Your task to perform on an android device: turn vacation reply on in the gmail app Image 0: 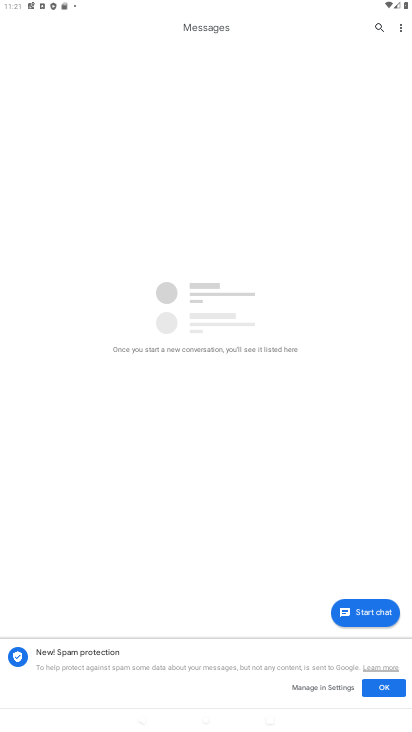
Step 0: press home button
Your task to perform on an android device: turn vacation reply on in the gmail app Image 1: 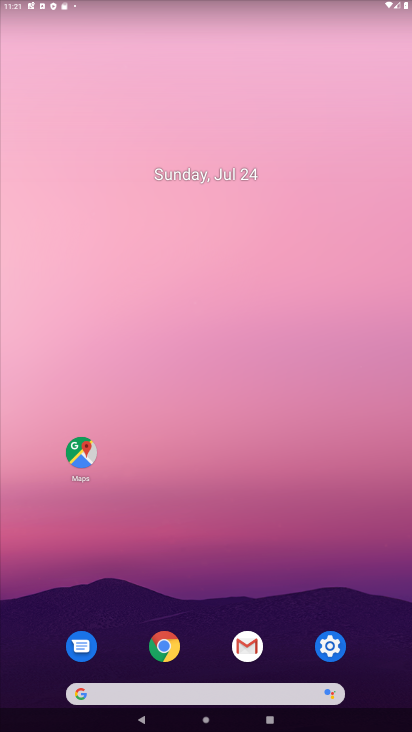
Step 1: click (257, 634)
Your task to perform on an android device: turn vacation reply on in the gmail app Image 2: 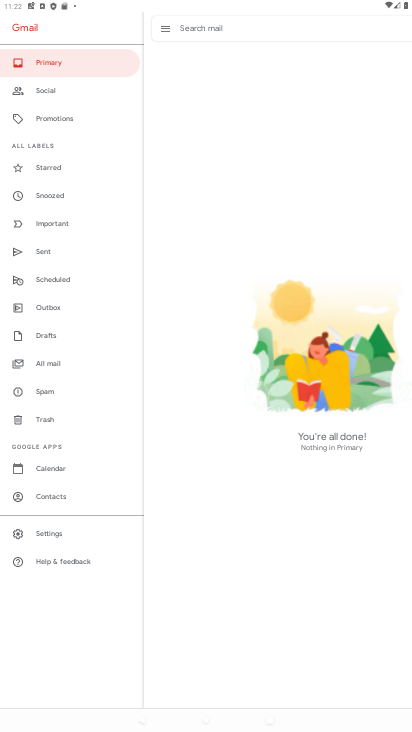
Step 2: click (53, 530)
Your task to perform on an android device: turn vacation reply on in the gmail app Image 3: 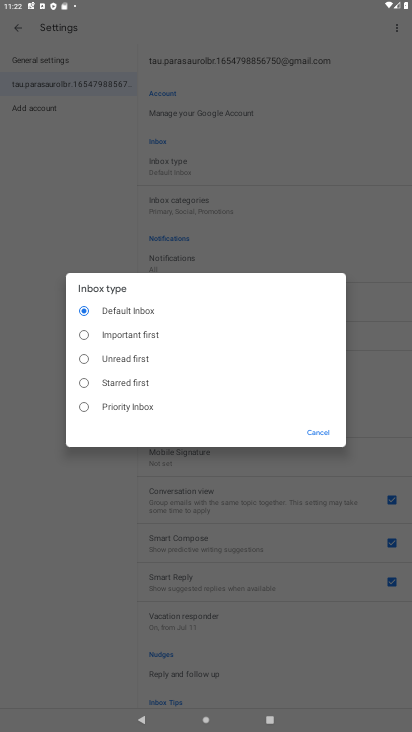
Step 3: click (313, 431)
Your task to perform on an android device: turn vacation reply on in the gmail app Image 4: 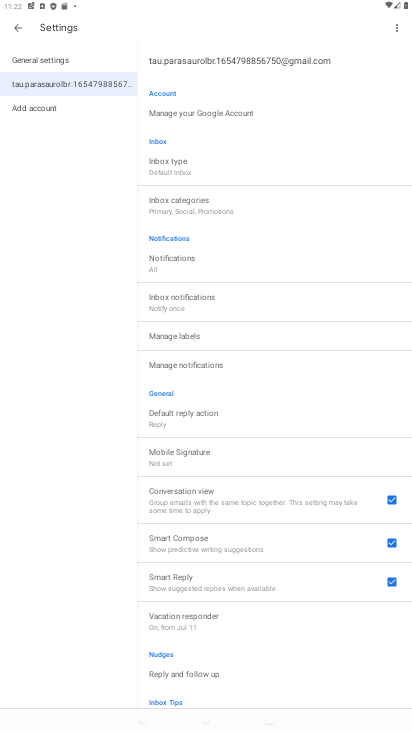
Step 4: click (210, 620)
Your task to perform on an android device: turn vacation reply on in the gmail app Image 5: 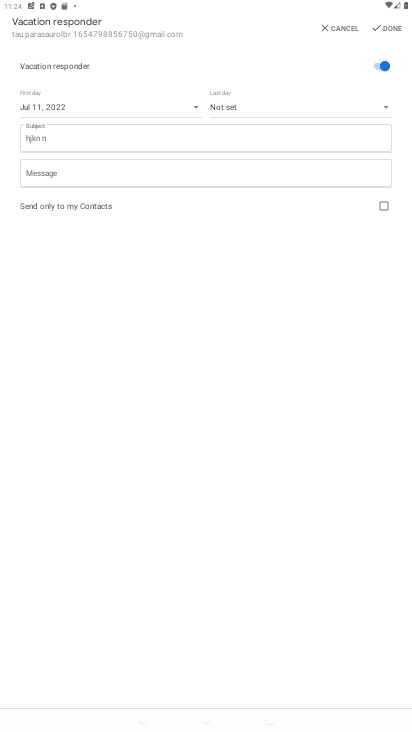
Step 5: task complete